Your task to perform on an android device: change notifications settings Image 0: 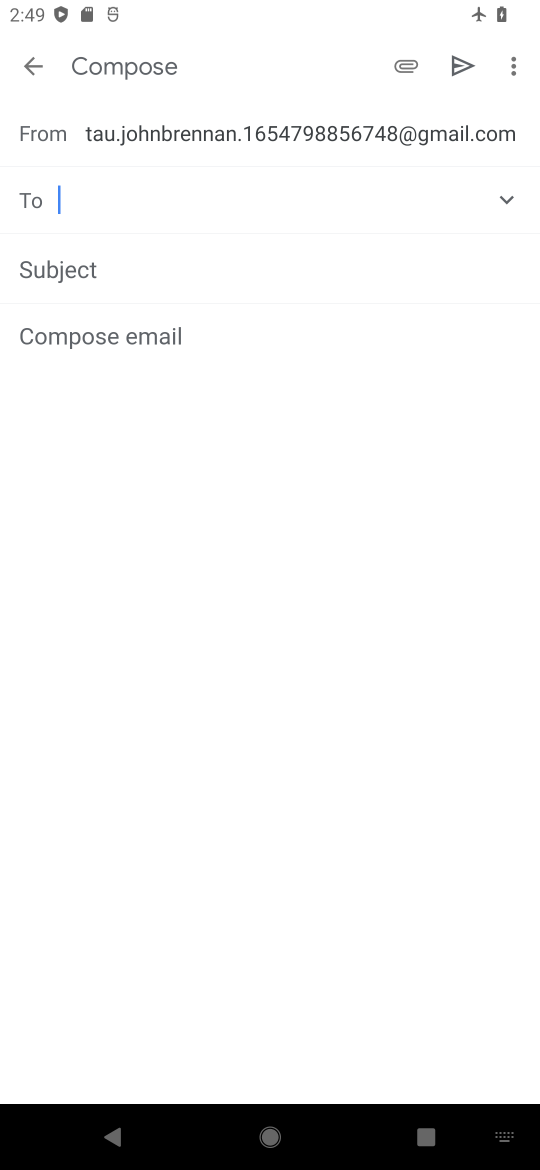
Step 0: press home button
Your task to perform on an android device: change notifications settings Image 1: 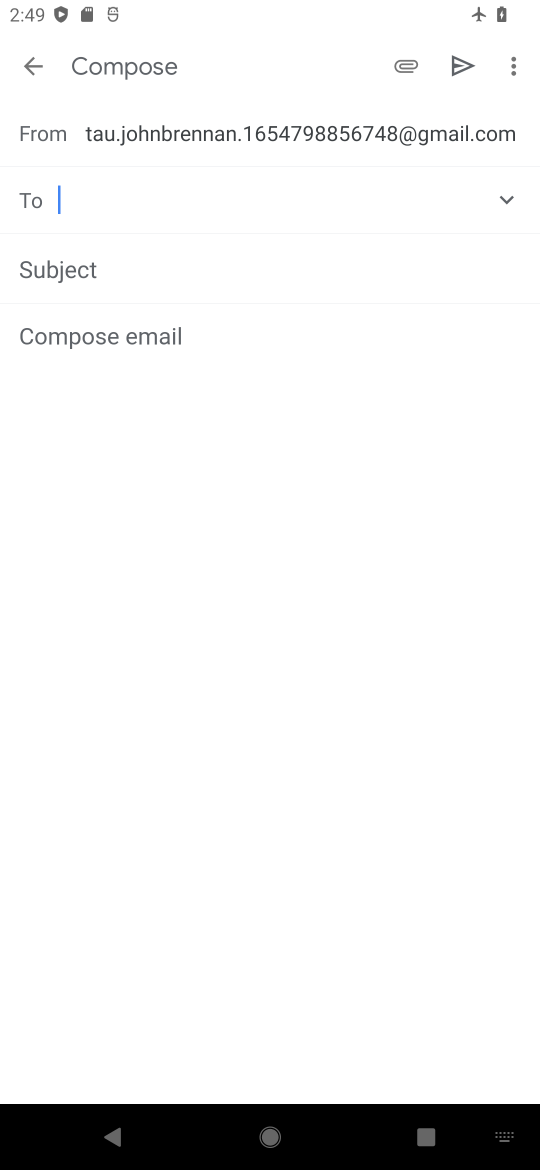
Step 1: press home button
Your task to perform on an android device: change notifications settings Image 2: 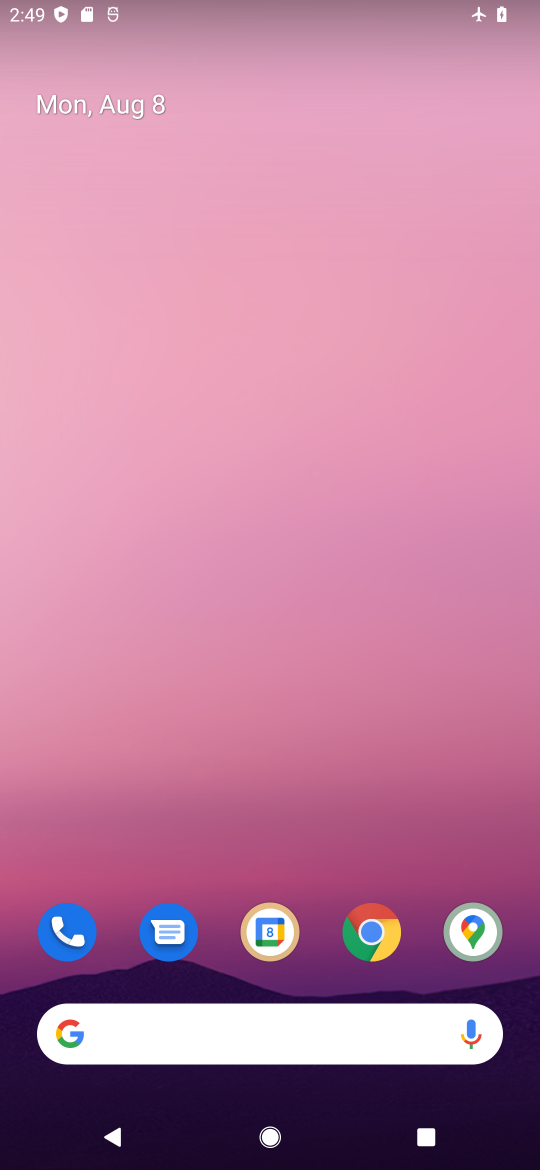
Step 2: drag from (314, 935) to (378, 242)
Your task to perform on an android device: change notifications settings Image 3: 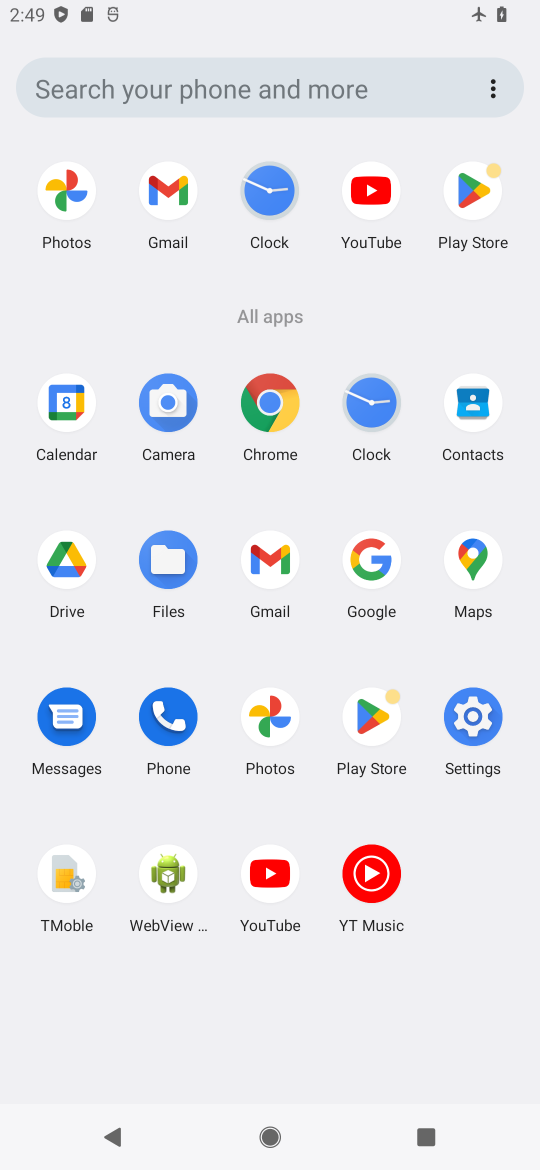
Step 3: click (489, 727)
Your task to perform on an android device: change notifications settings Image 4: 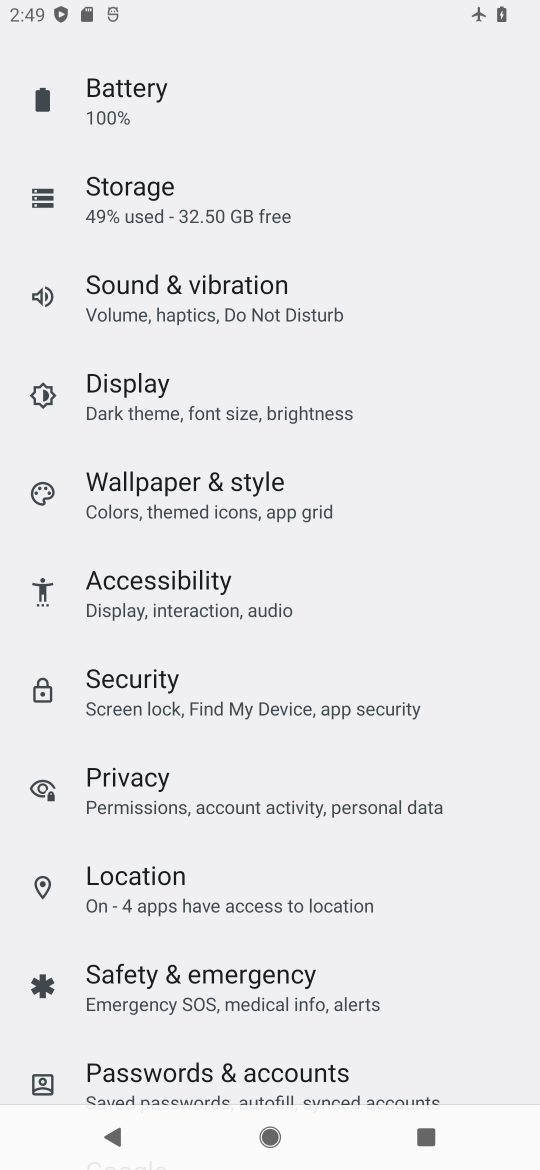
Step 4: drag from (361, 127) to (292, 726)
Your task to perform on an android device: change notifications settings Image 5: 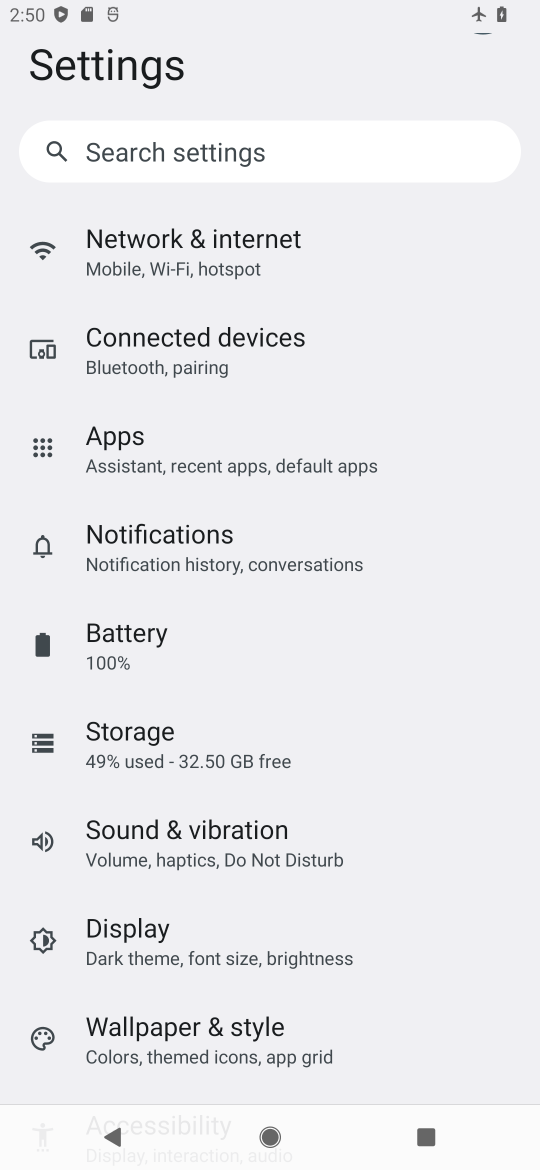
Step 5: click (198, 552)
Your task to perform on an android device: change notifications settings Image 6: 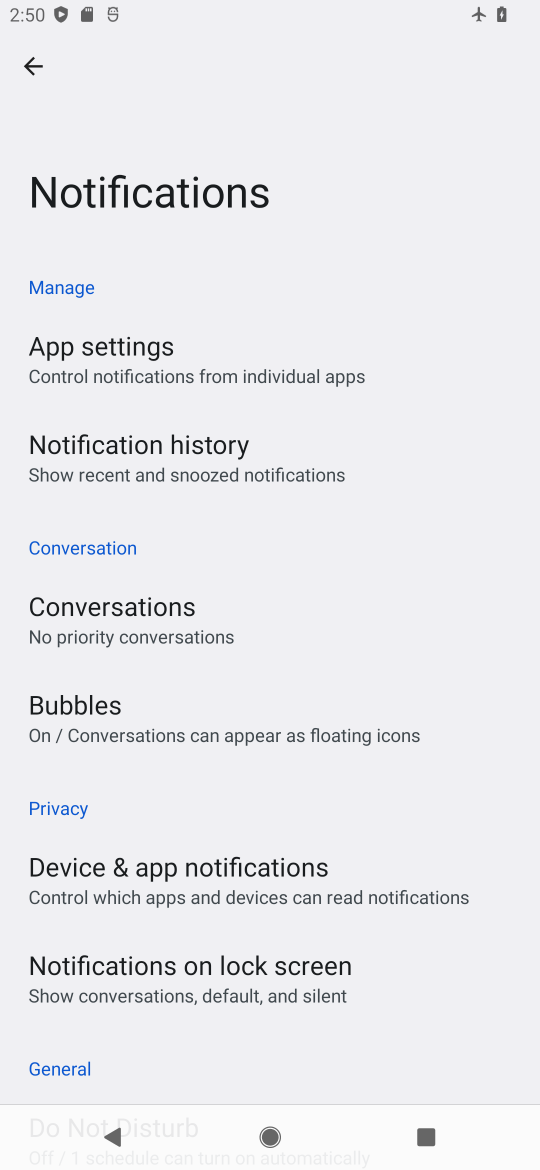
Step 6: task complete